Your task to perform on an android device: Go to ESPN.com Image 0: 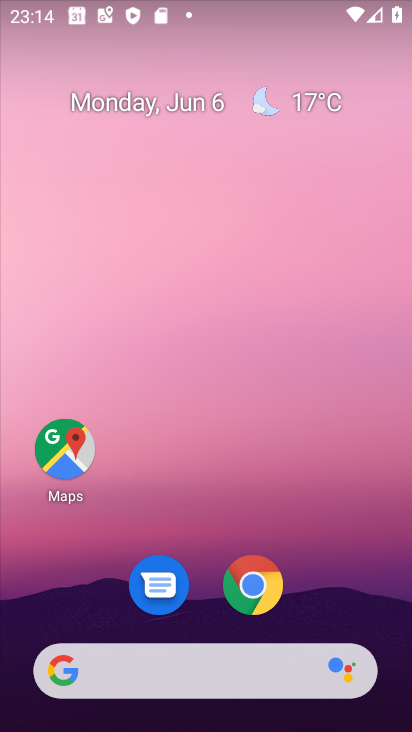
Step 0: click (224, 685)
Your task to perform on an android device: Go to ESPN.com Image 1: 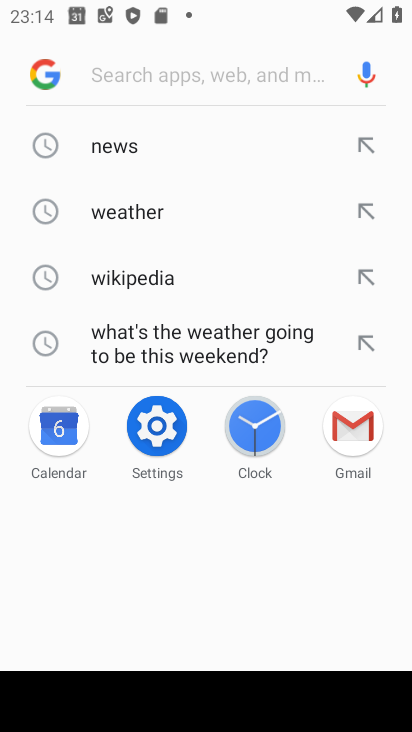
Step 1: type "espn.com"
Your task to perform on an android device: Go to ESPN.com Image 2: 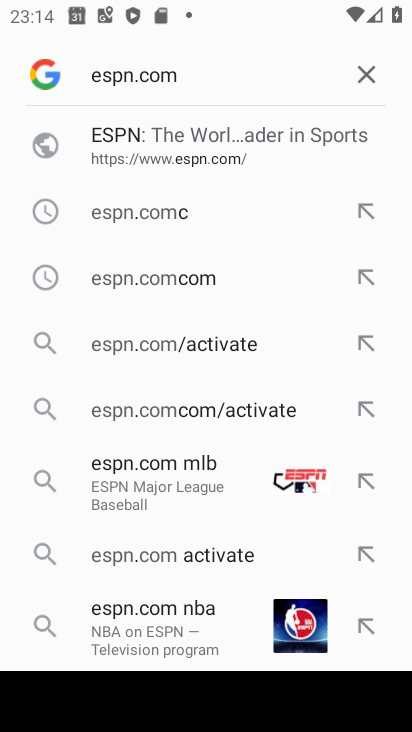
Step 2: click (101, 138)
Your task to perform on an android device: Go to ESPN.com Image 3: 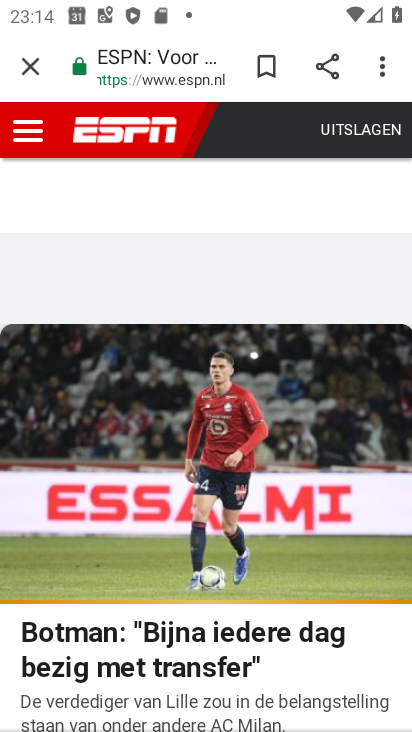
Step 3: task complete